Your task to perform on an android device: Search for the best selling coffee table on Crate & Barrel Image 0: 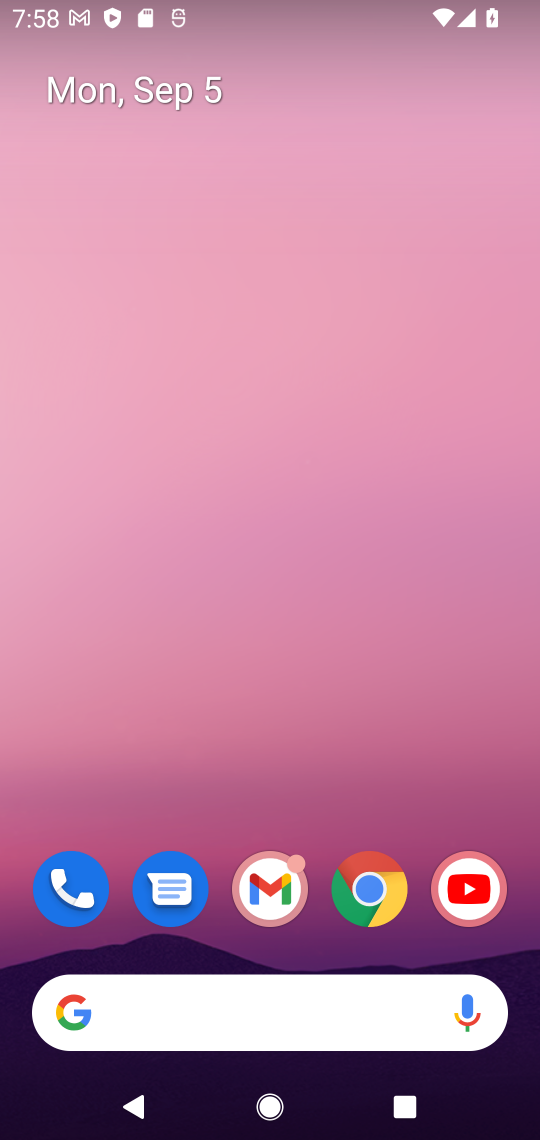
Step 0: click (269, 1022)
Your task to perform on an android device: Search for the best selling coffee table on Crate & Barrel Image 1: 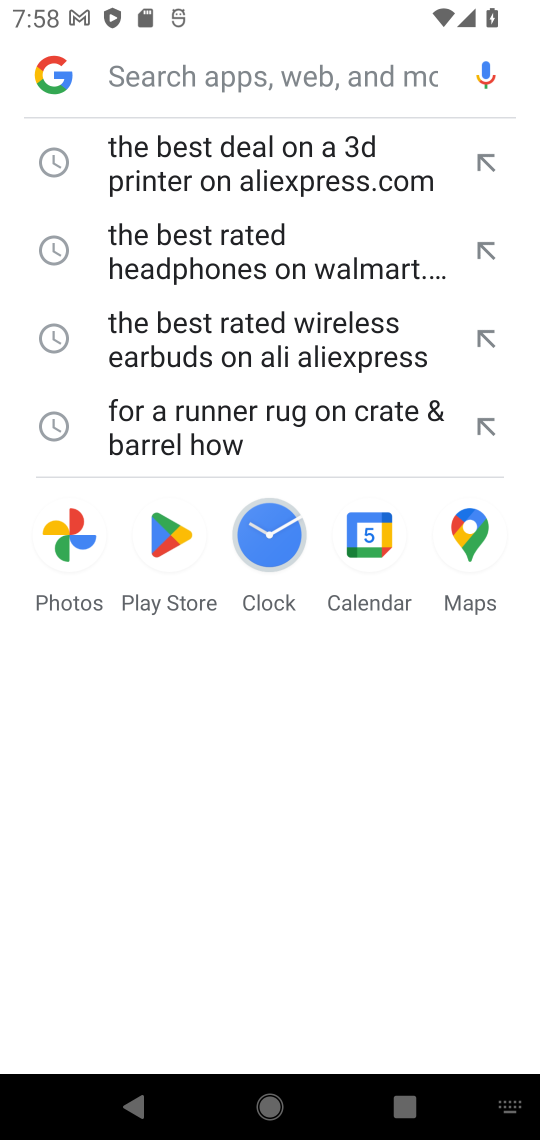
Step 1: type " the best selling coffee table on Crate & Barrel"
Your task to perform on an android device: Search for the best selling coffee table on Crate & Barrel Image 2: 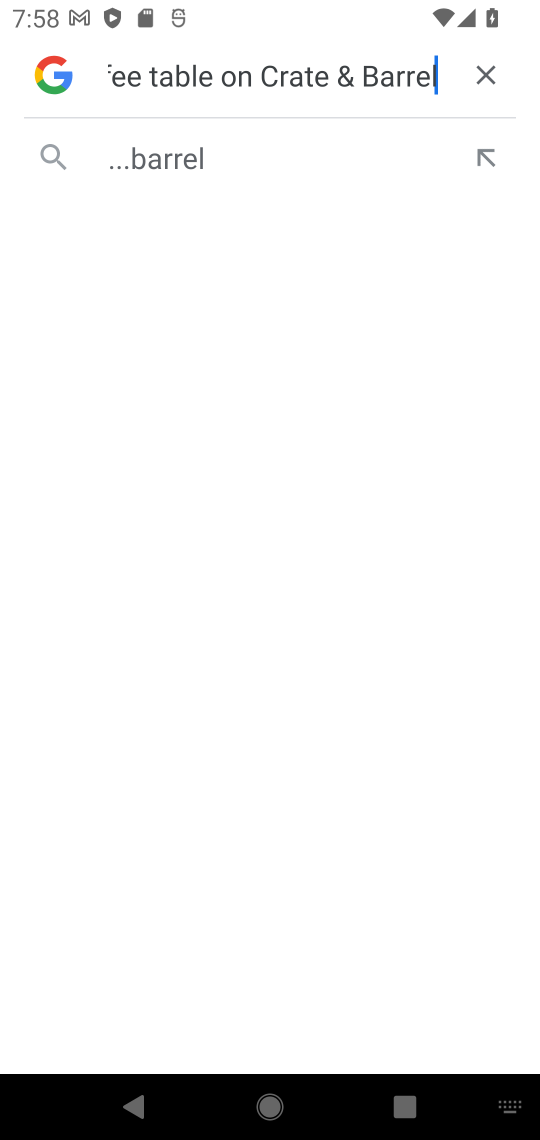
Step 2: click (157, 167)
Your task to perform on an android device: Search for the best selling coffee table on Crate & Barrel Image 3: 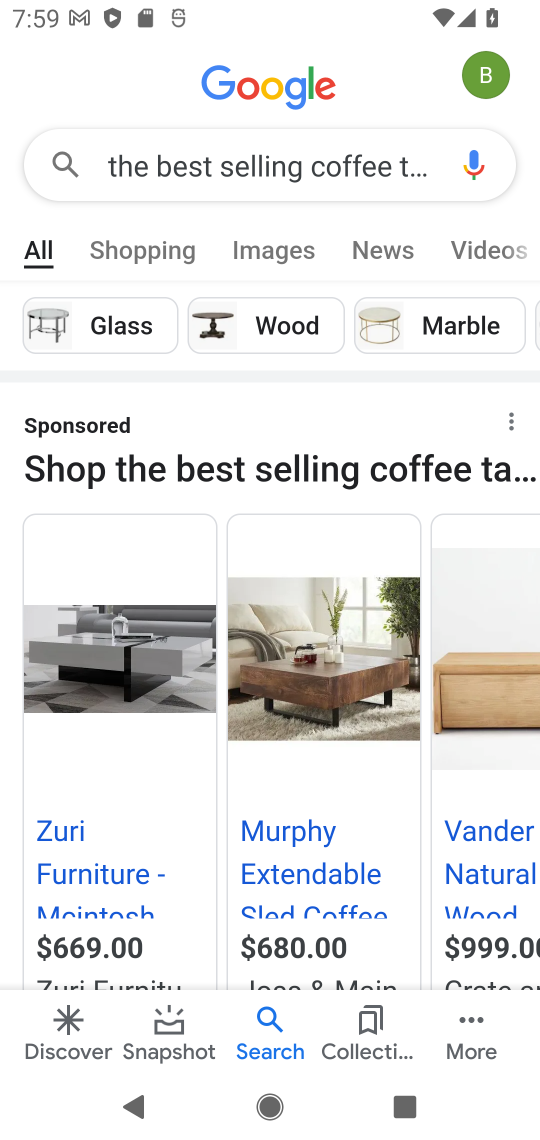
Step 3: task complete